Your task to perform on an android device: Go to Reddit.com Image 0: 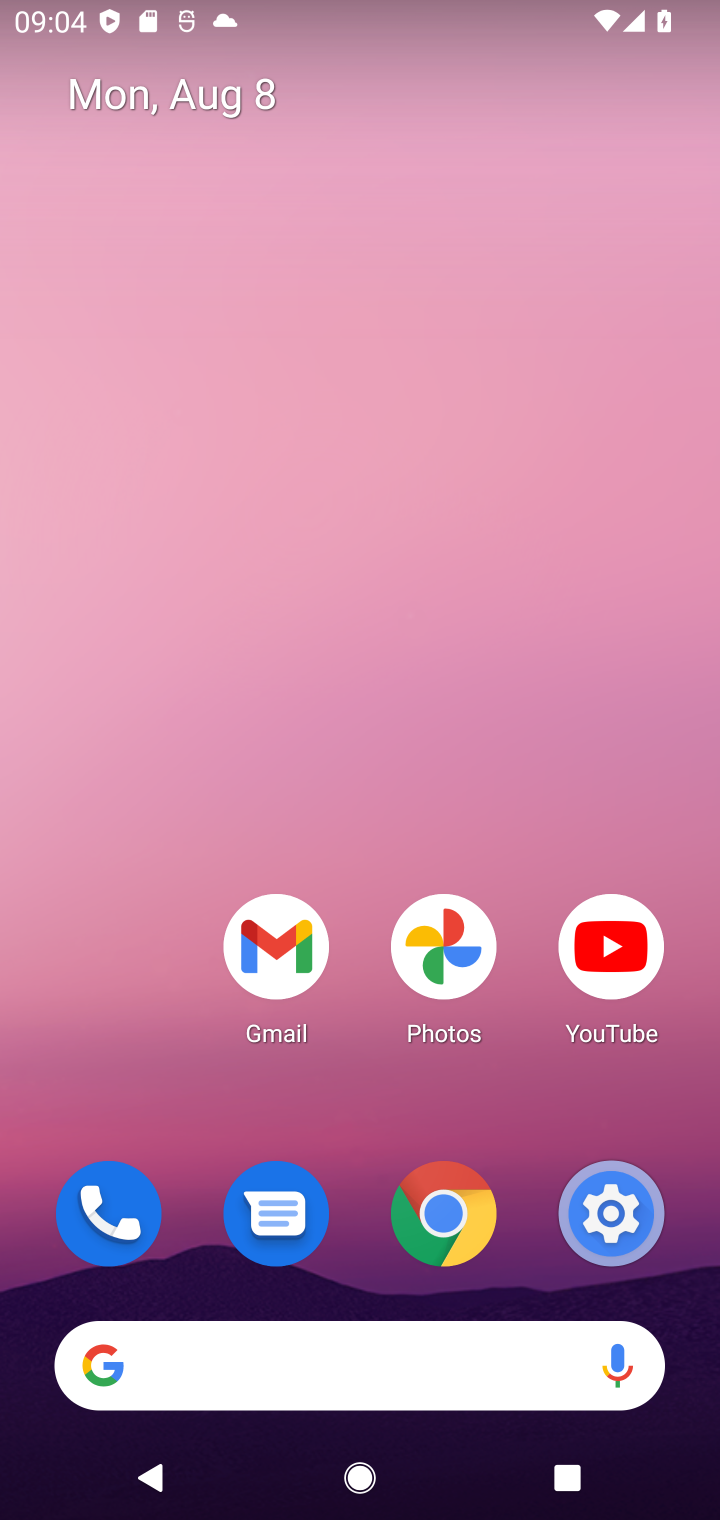
Step 0: drag from (379, 1110) to (410, 111)
Your task to perform on an android device: Go to Reddit.com Image 1: 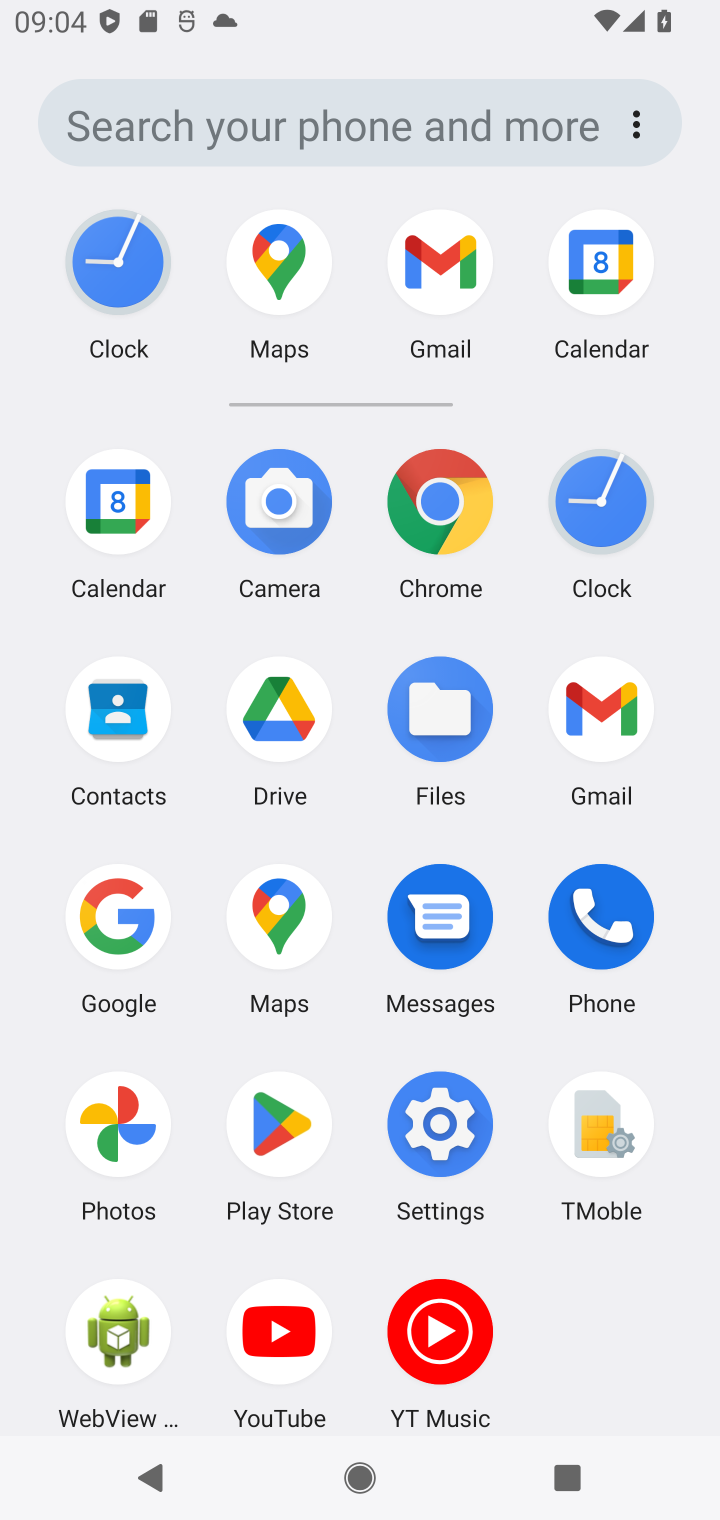
Step 1: click (466, 570)
Your task to perform on an android device: Go to Reddit.com Image 2: 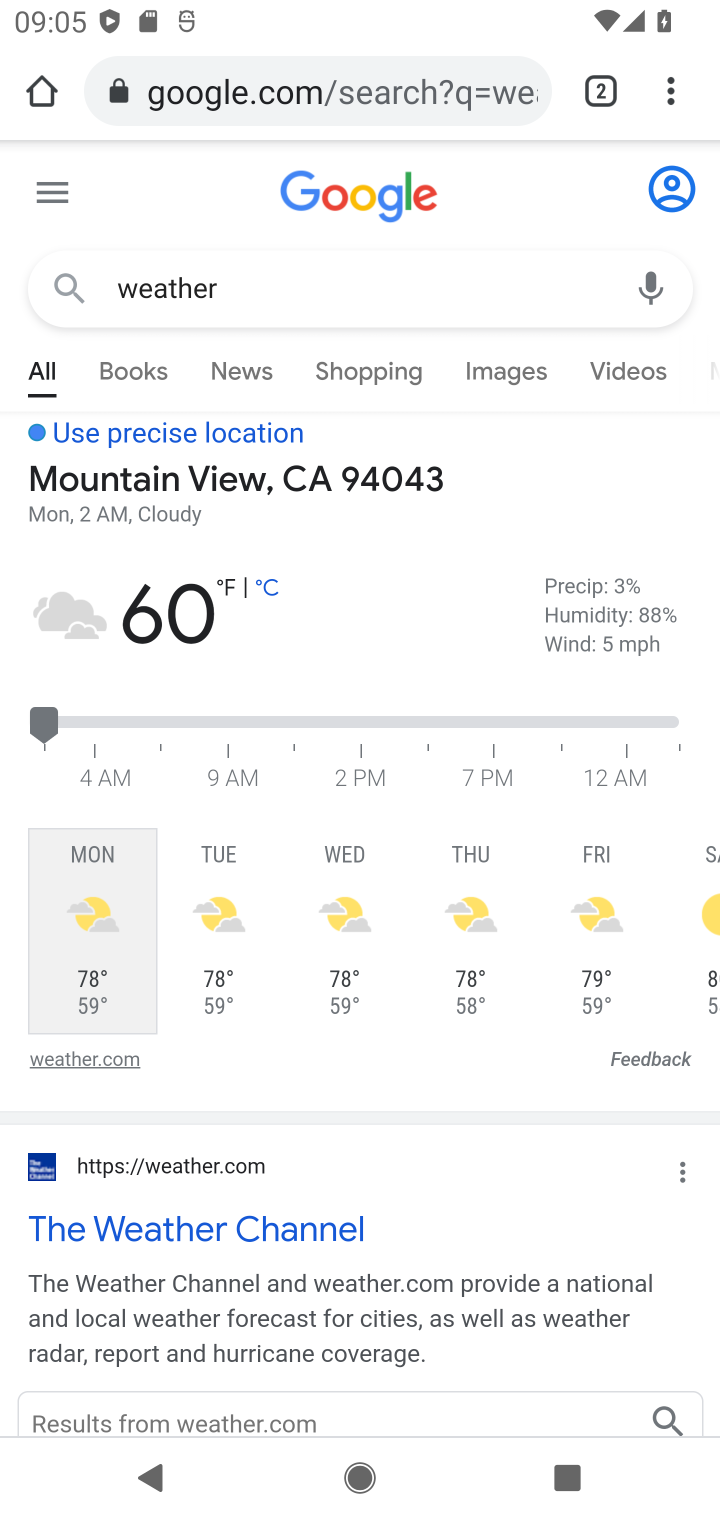
Step 2: click (580, 93)
Your task to perform on an android device: Go to Reddit.com Image 3: 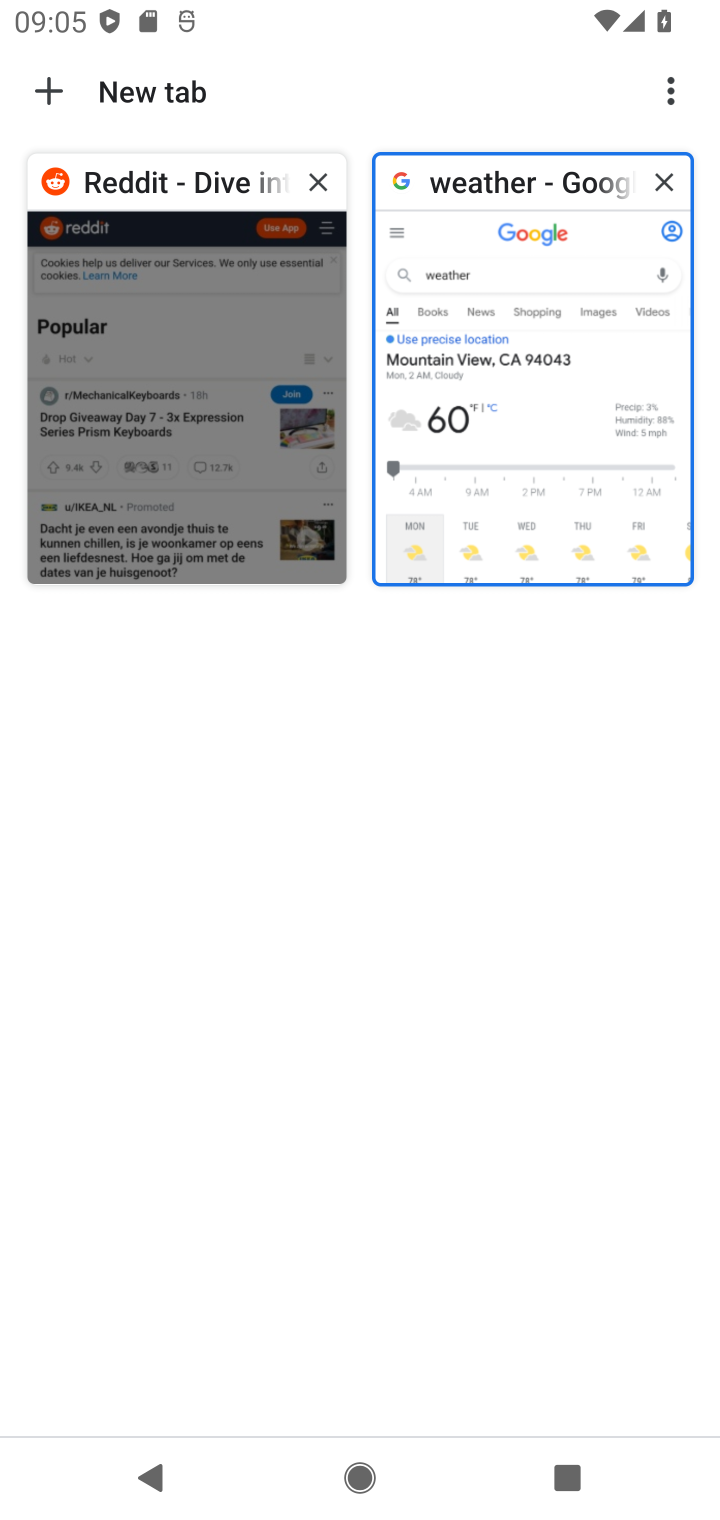
Step 3: click (71, 96)
Your task to perform on an android device: Go to Reddit.com Image 4: 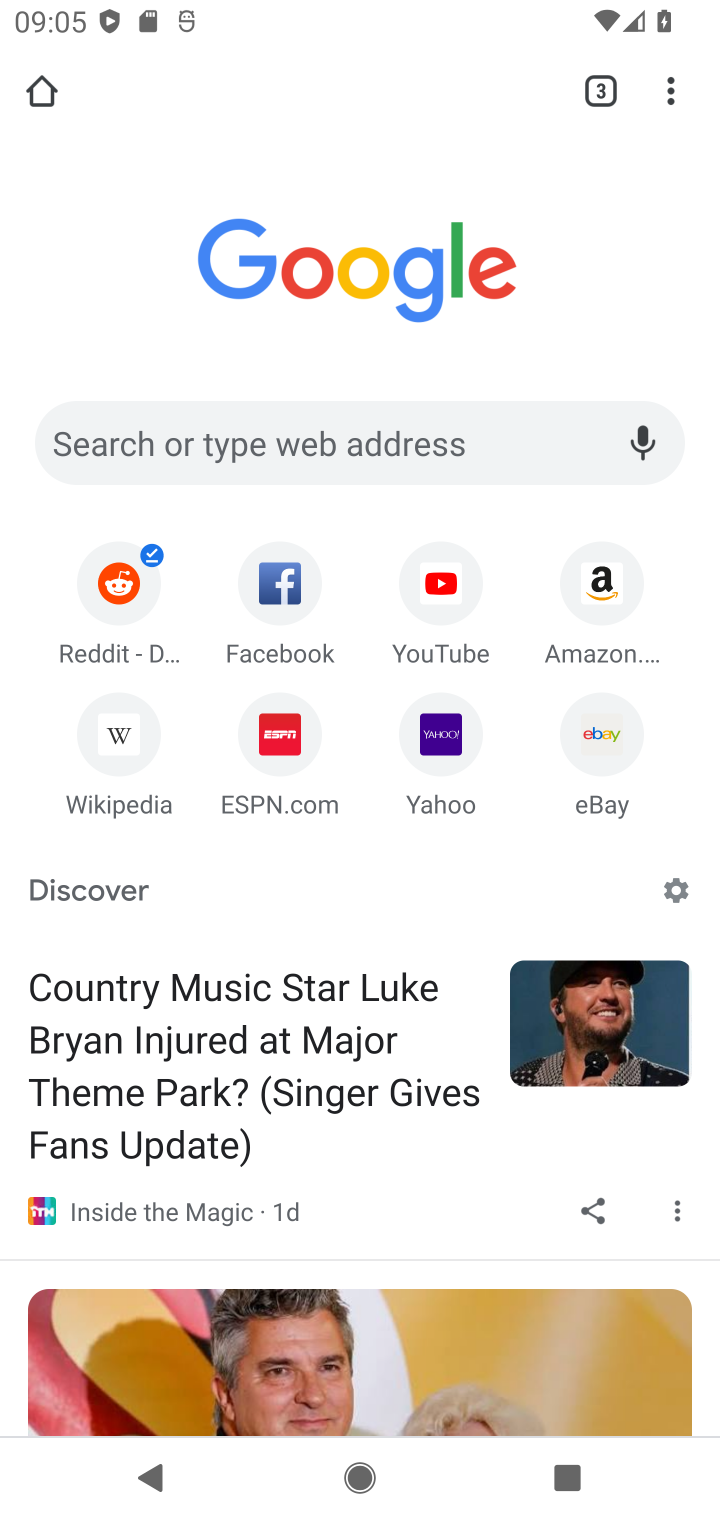
Step 4: click (102, 615)
Your task to perform on an android device: Go to Reddit.com Image 5: 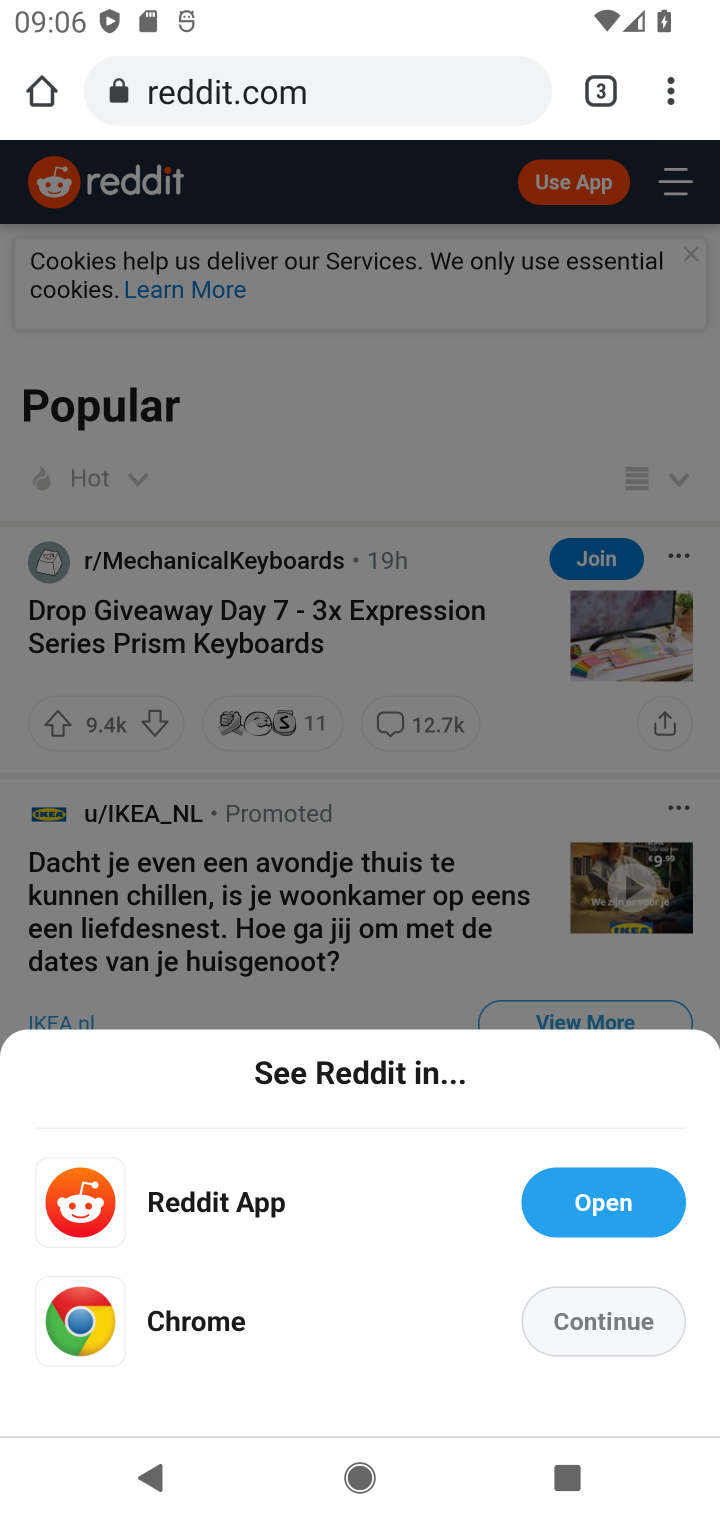
Step 5: click (556, 1327)
Your task to perform on an android device: Go to Reddit.com Image 6: 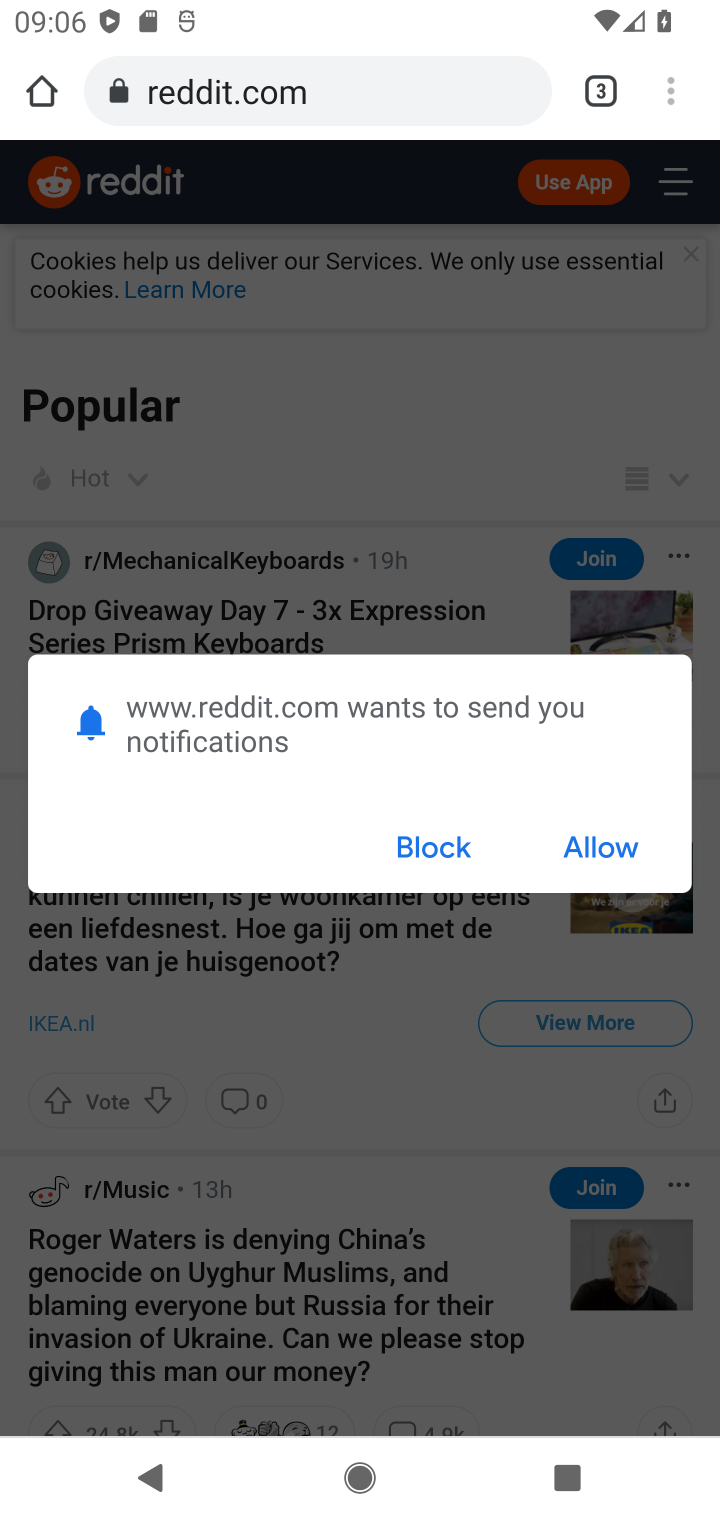
Step 6: click (473, 851)
Your task to perform on an android device: Go to Reddit.com Image 7: 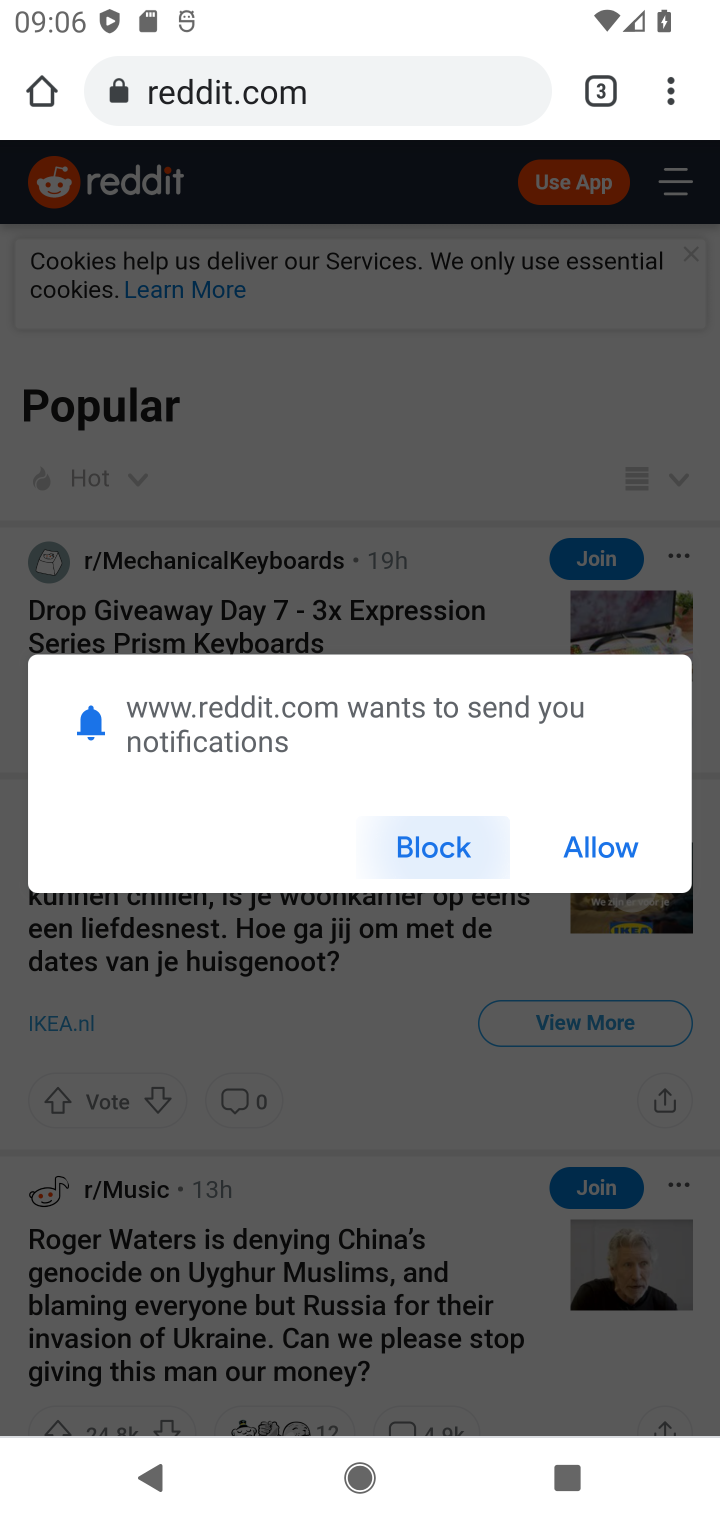
Step 7: task complete